Your task to perform on an android device: Search for the best rated tool bag on Lowe's. Image 0: 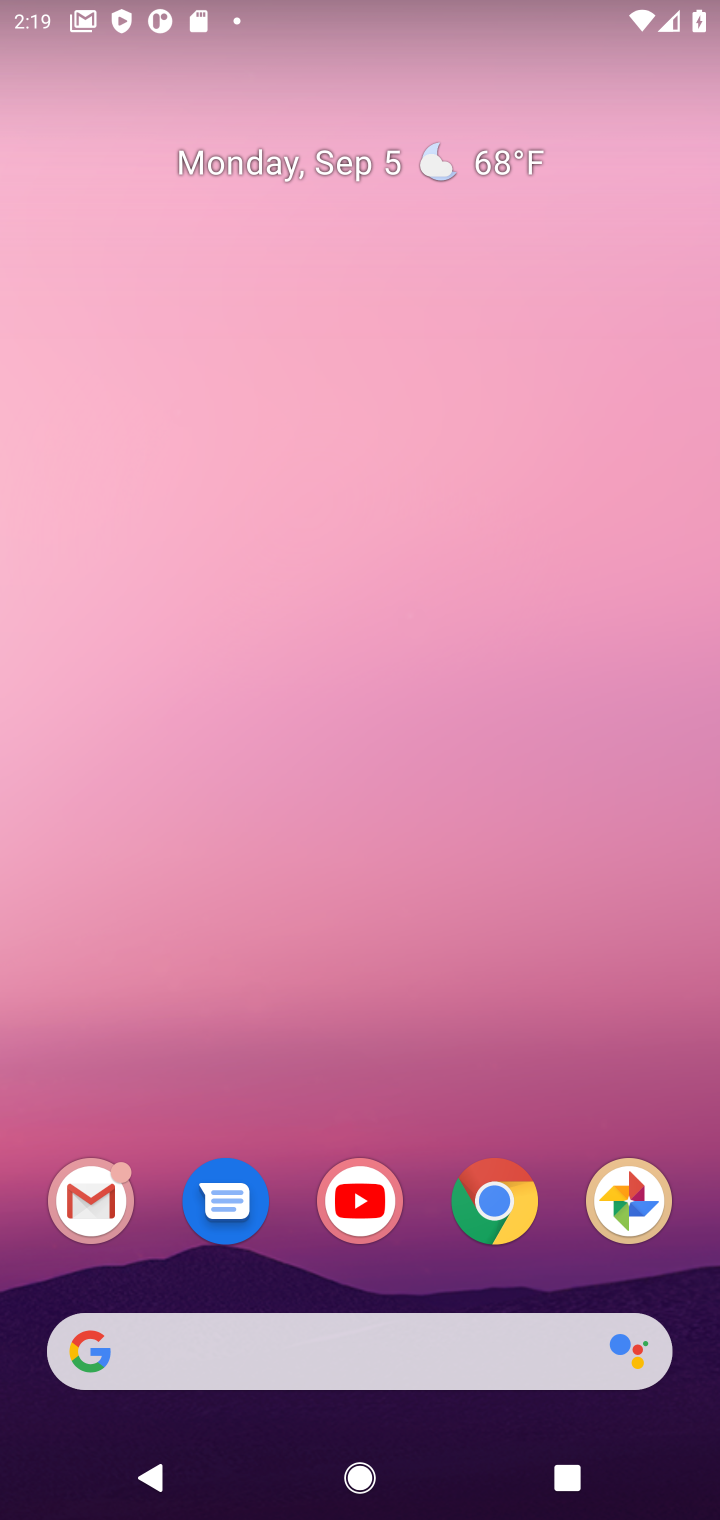
Step 0: click (511, 1211)
Your task to perform on an android device: Search for the best rated tool bag on Lowe's. Image 1: 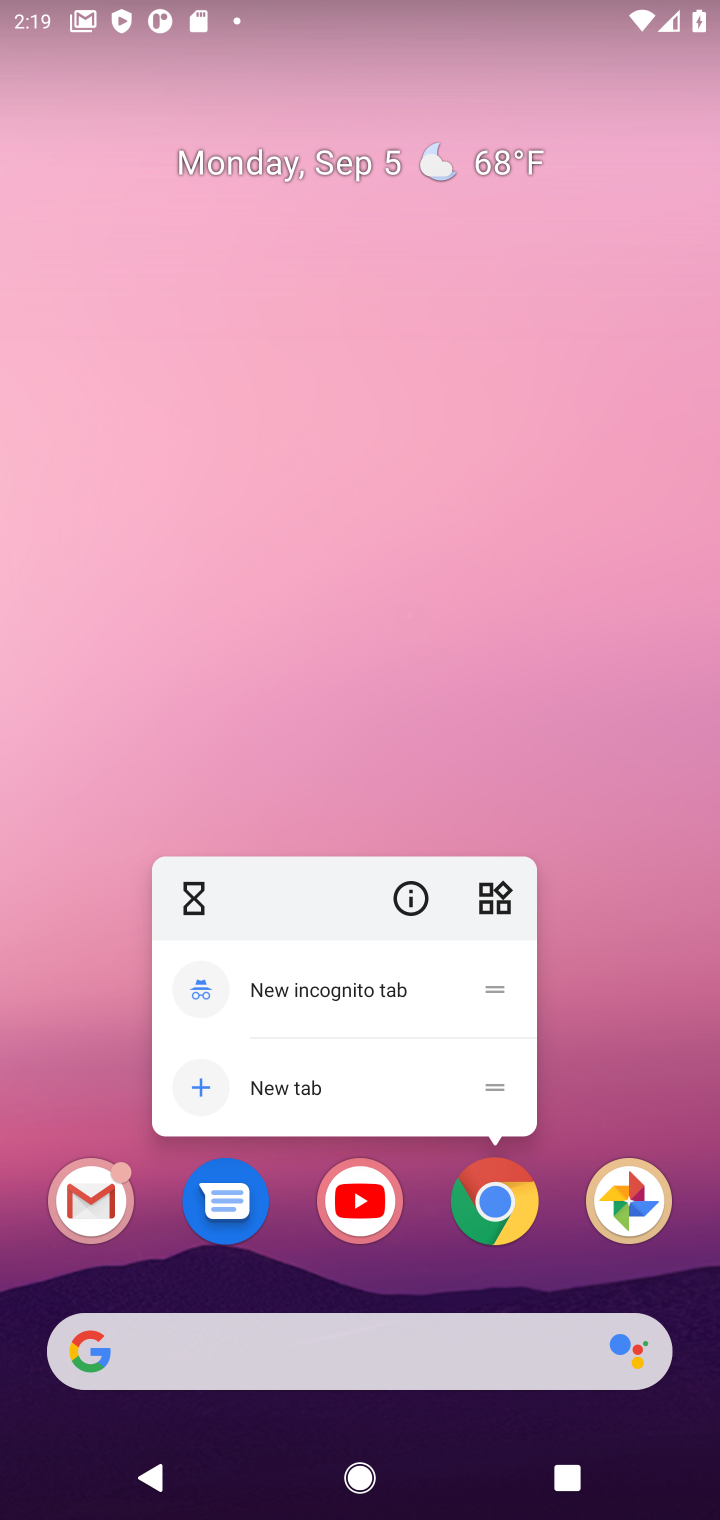
Step 1: click (511, 1214)
Your task to perform on an android device: Search for the best rated tool bag on Lowe's. Image 2: 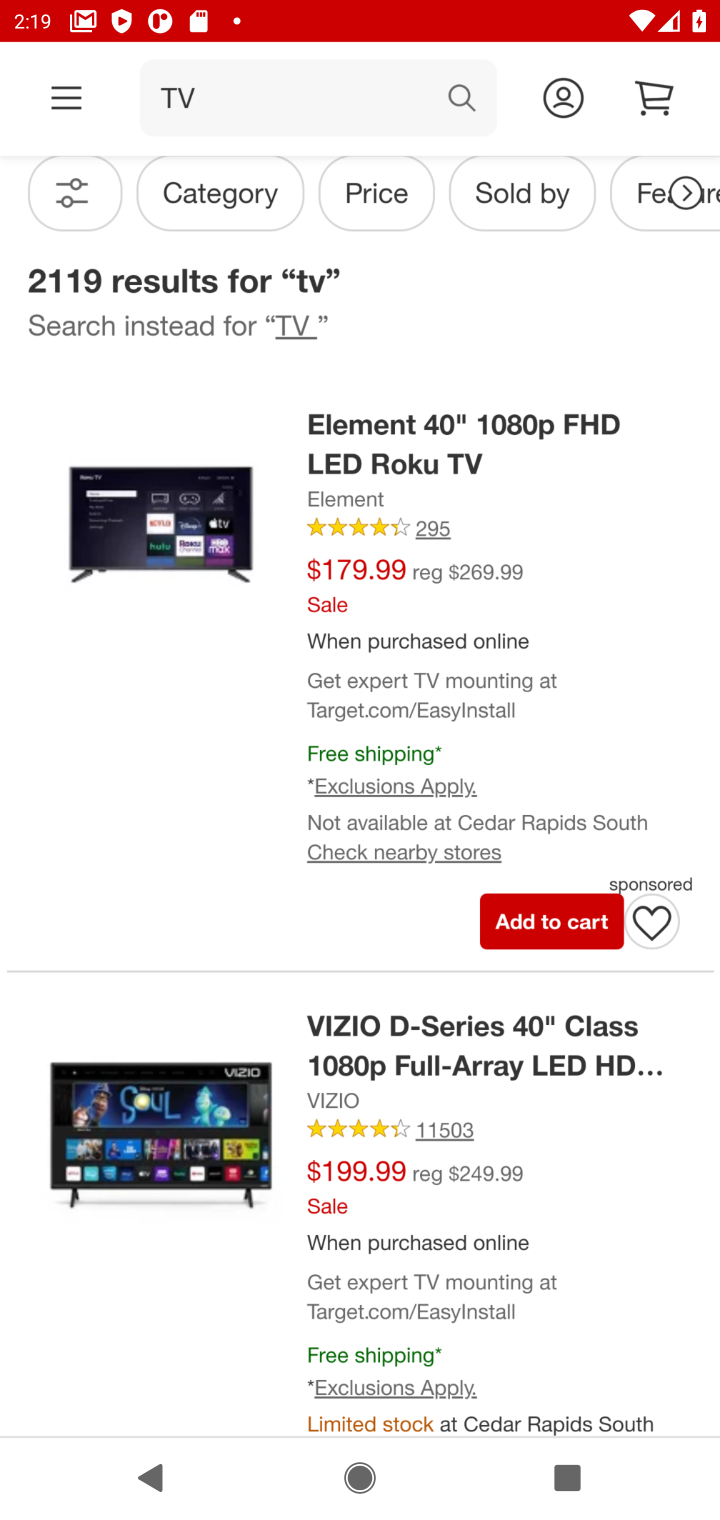
Step 2: click (511, 1214)
Your task to perform on an android device: Search for the best rated tool bag on Lowe's. Image 3: 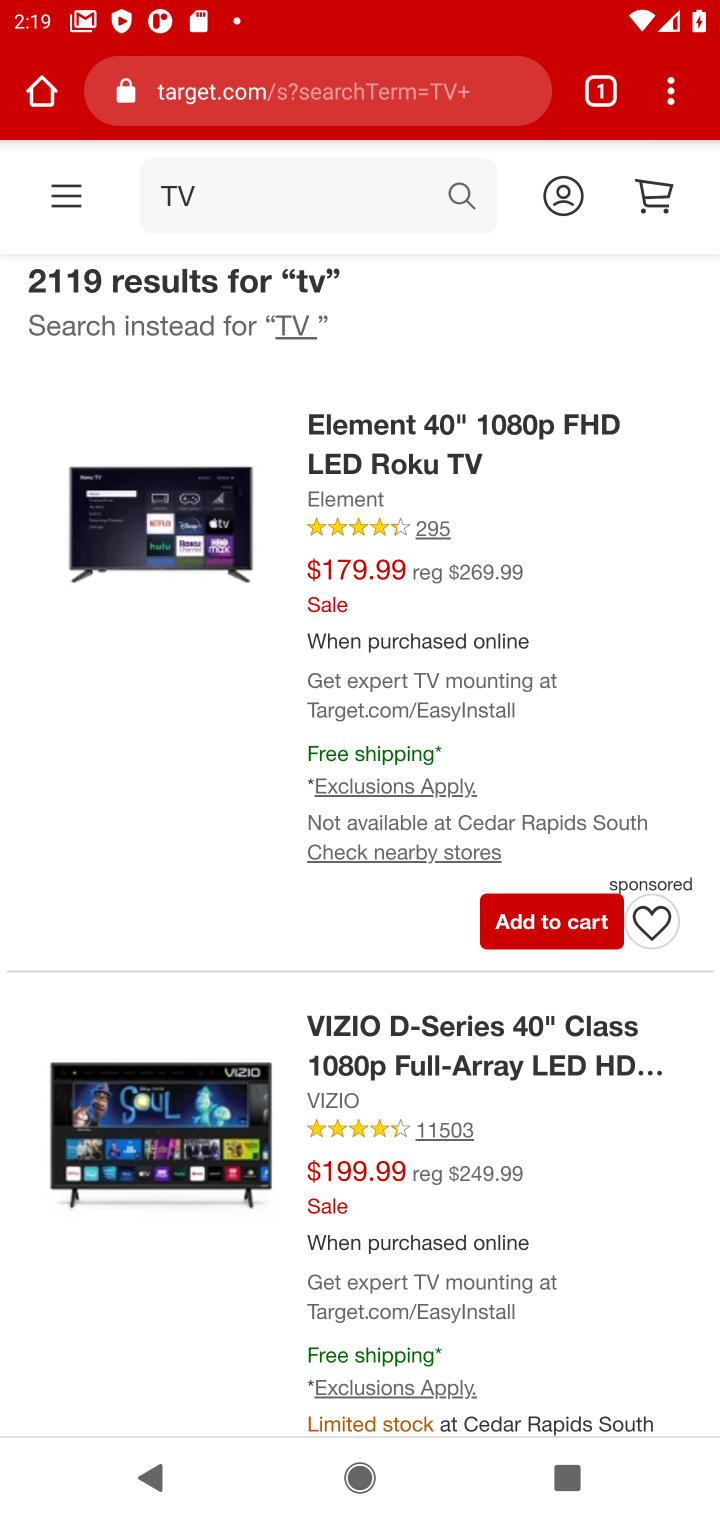
Step 3: click (450, 86)
Your task to perform on an android device: Search for the best rated tool bag on Lowe's. Image 4: 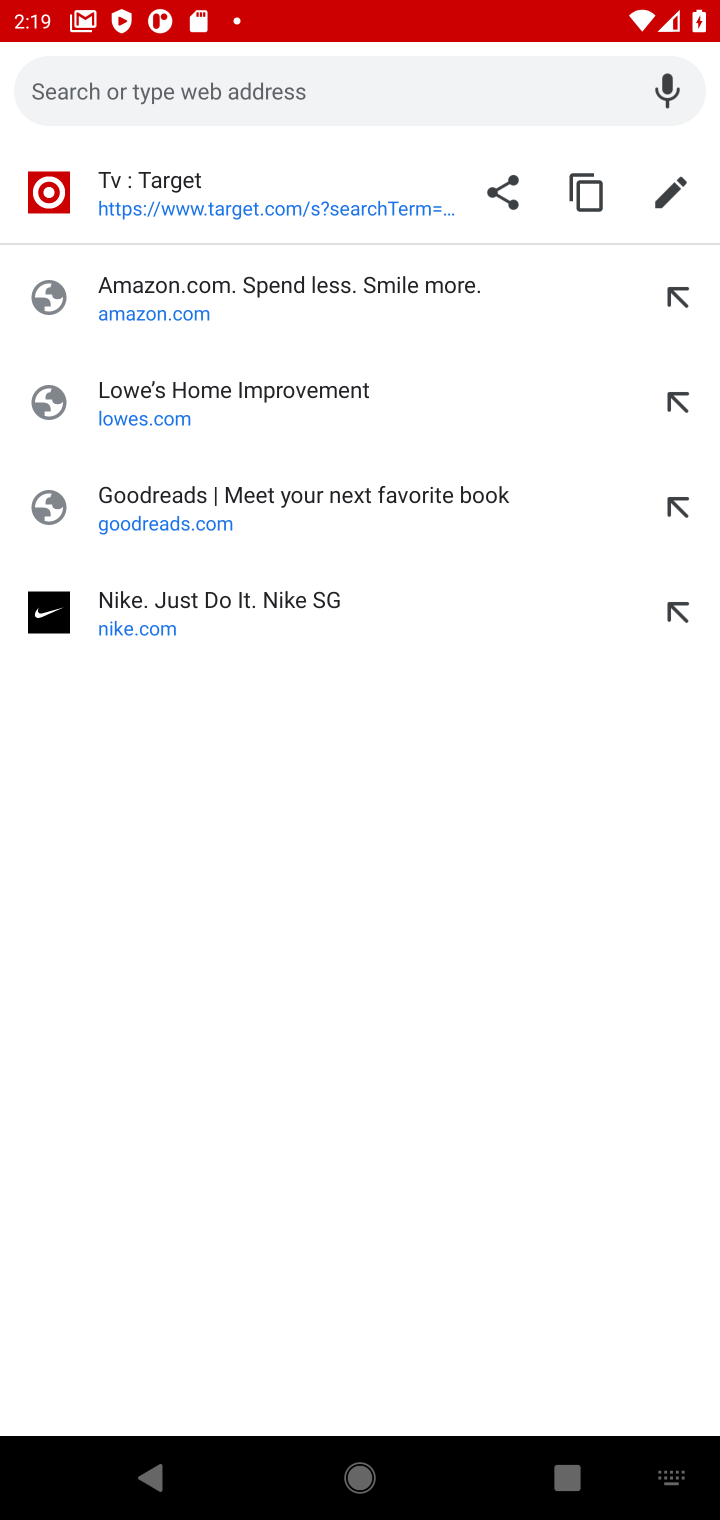
Step 4: type " Lowe's"
Your task to perform on an android device: Search for the best rated tool bag on Lowe's. Image 5: 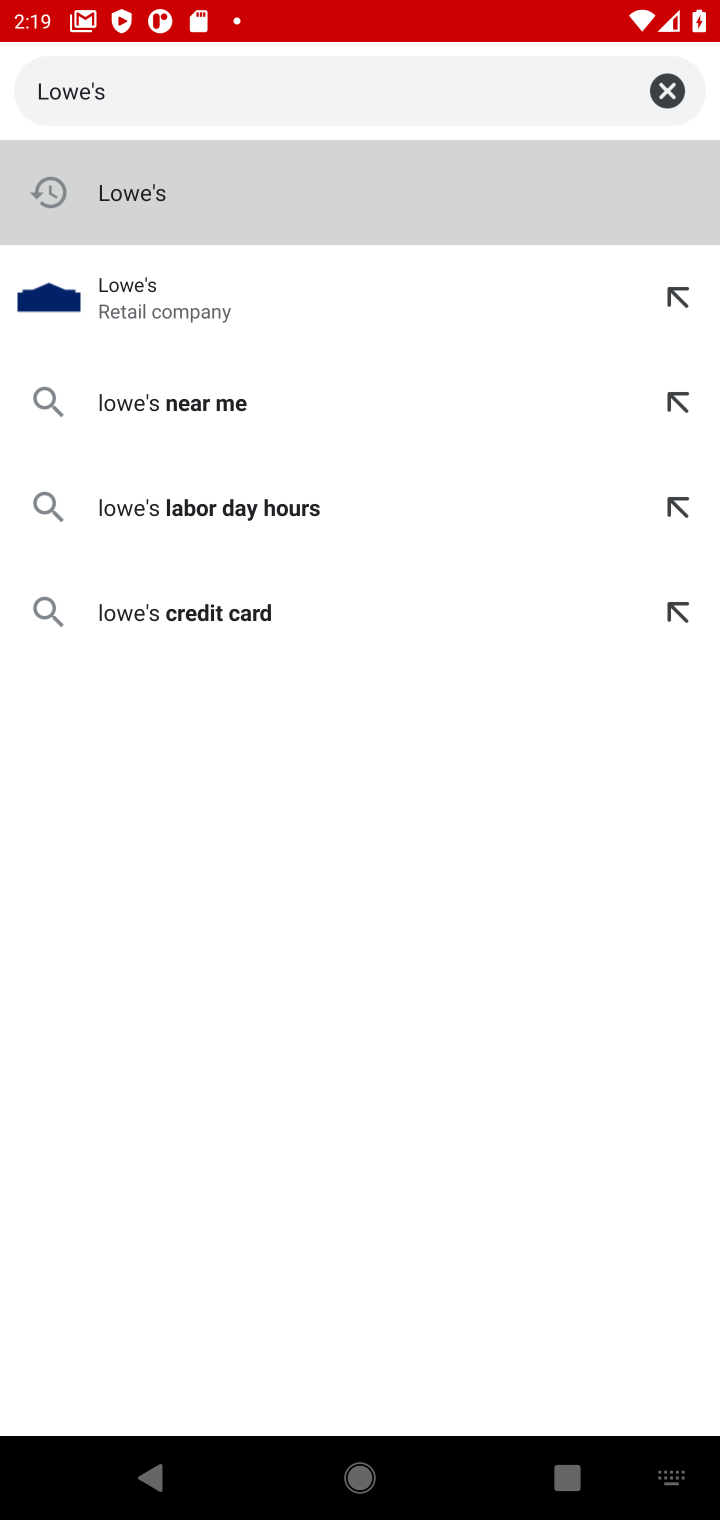
Step 5: press enter
Your task to perform on an android device: Search for the best rated tool bag on Lowe's. Image 6: 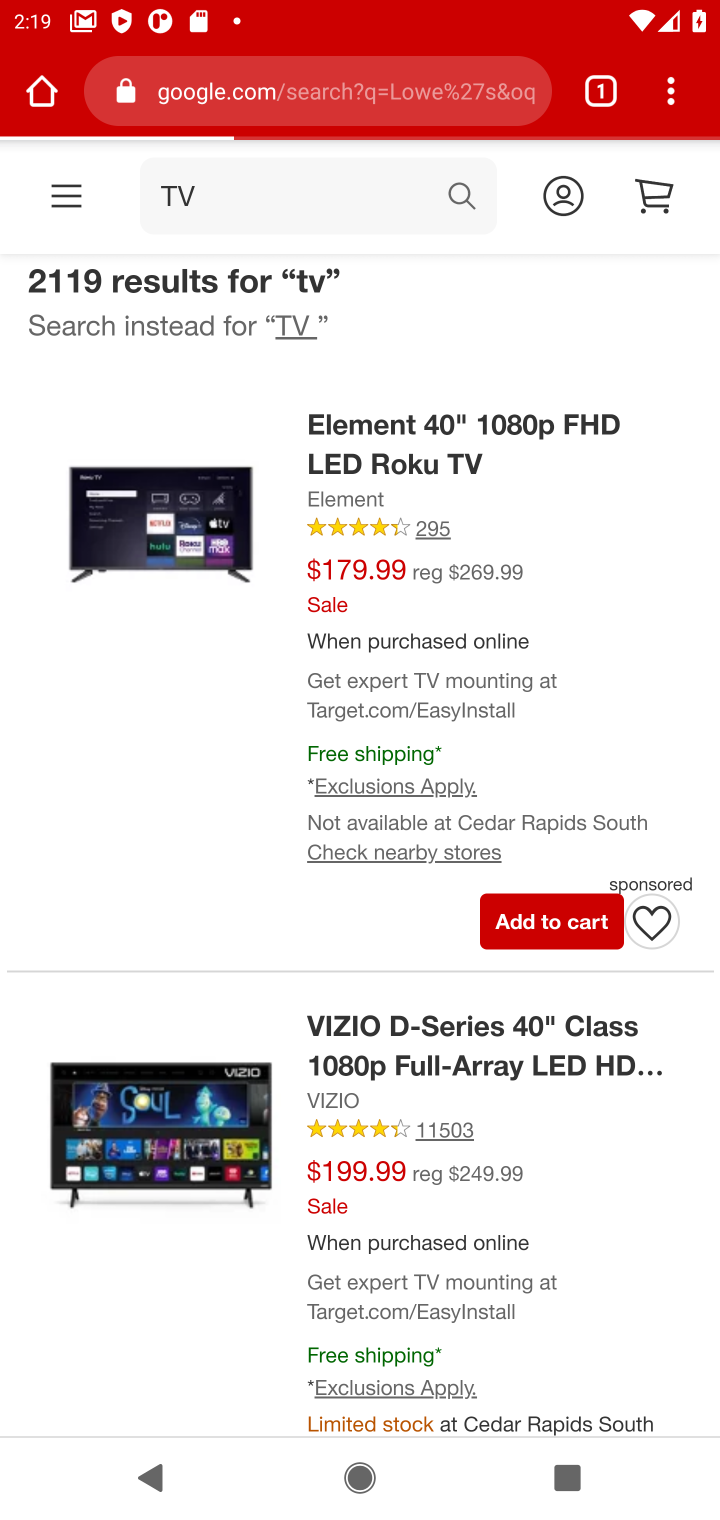
Step 6: click (369, 202)
Your task to perform on an android device: Search for the best rated tool bag on Lowe's. Image 7: 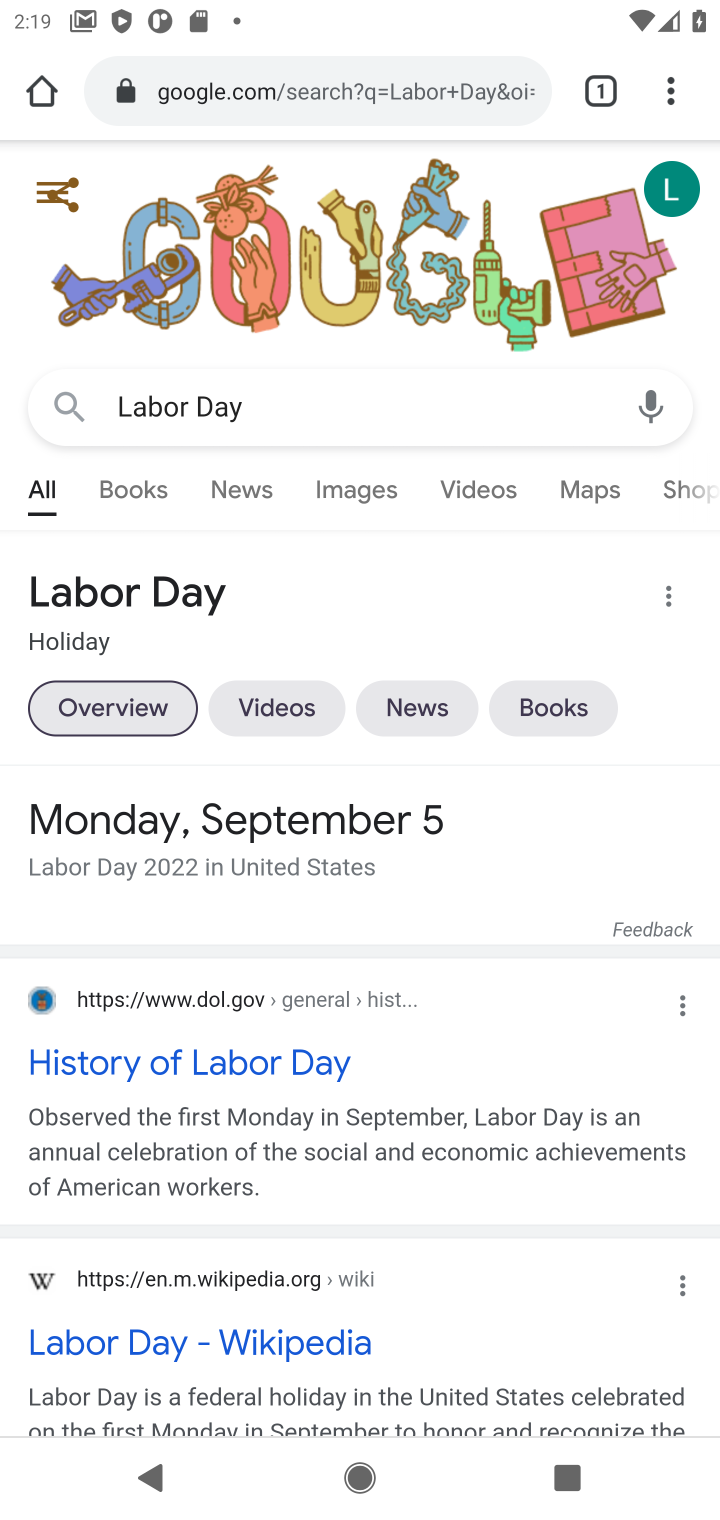
Step 7: press back button
Your task to perform on an android device: Search for the best rated tool bag on Lowe's. Image 8: 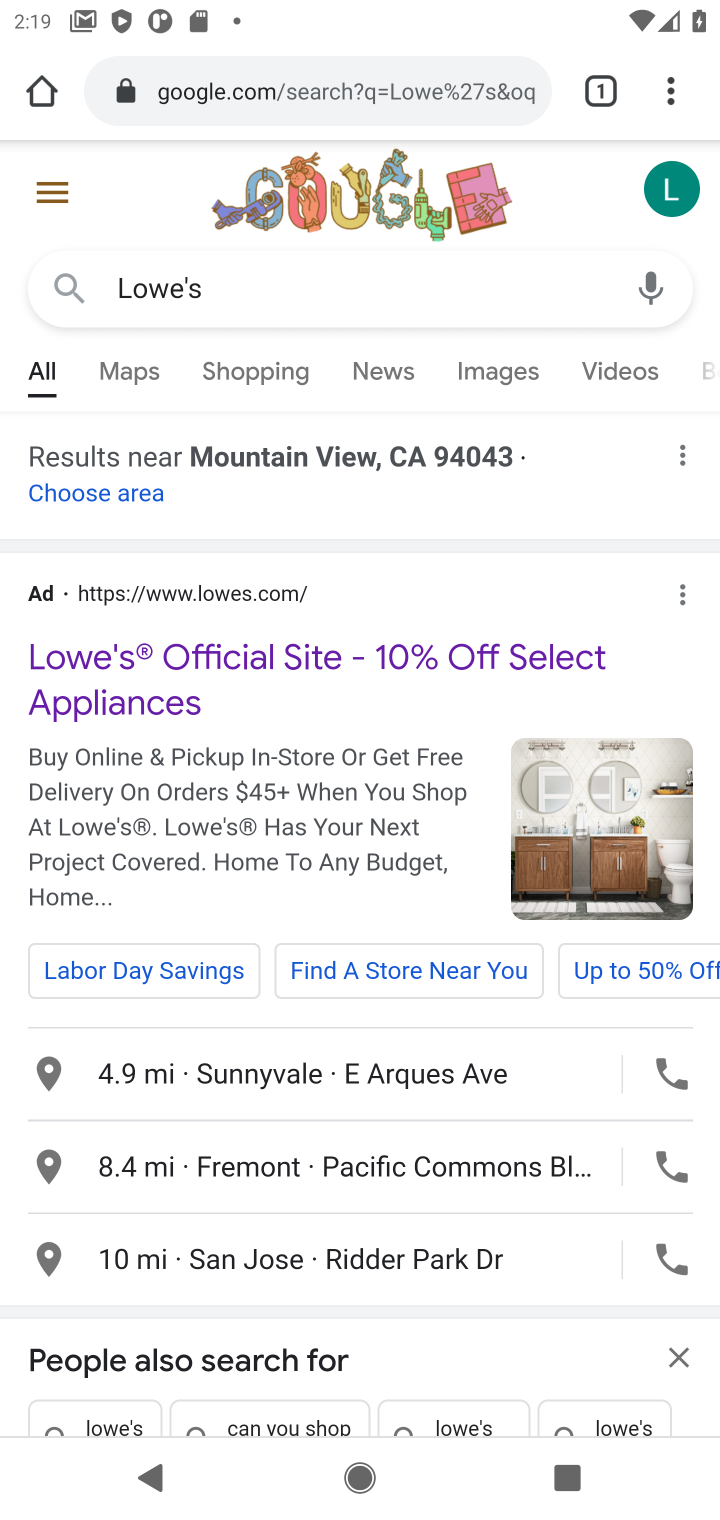
Step 8: click (199, 656)
Your task to perform on an android device: Search for the best rated tool bag on Lowe's. Image 9: 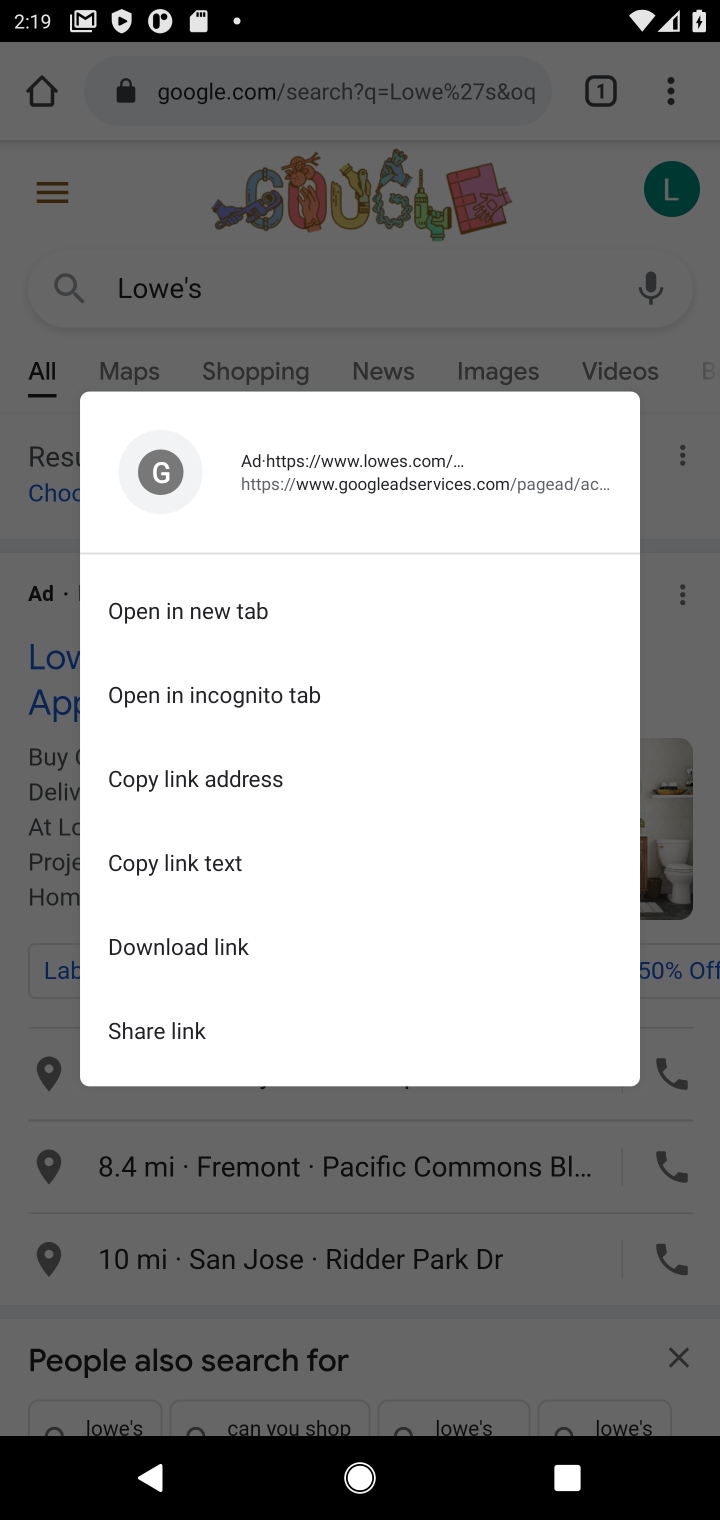
Step 9: click (555, 1260)
Your task to perform on an android device: Search for the best rated tool bag on Lowe's. Image 10: 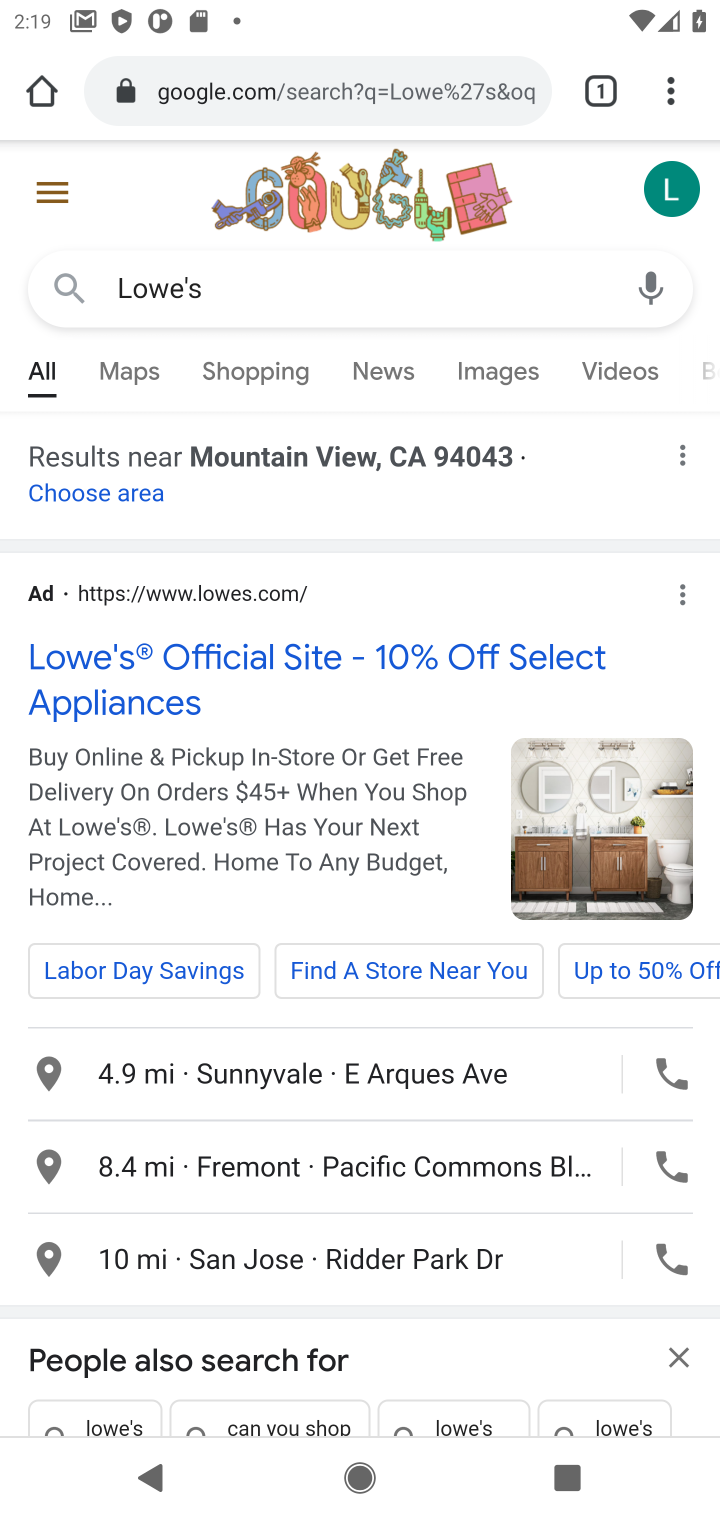
Step 10: click (91, 663)
Your task to perform on an android device: Search for the best rated tool bag on Lowe's. Image 11: 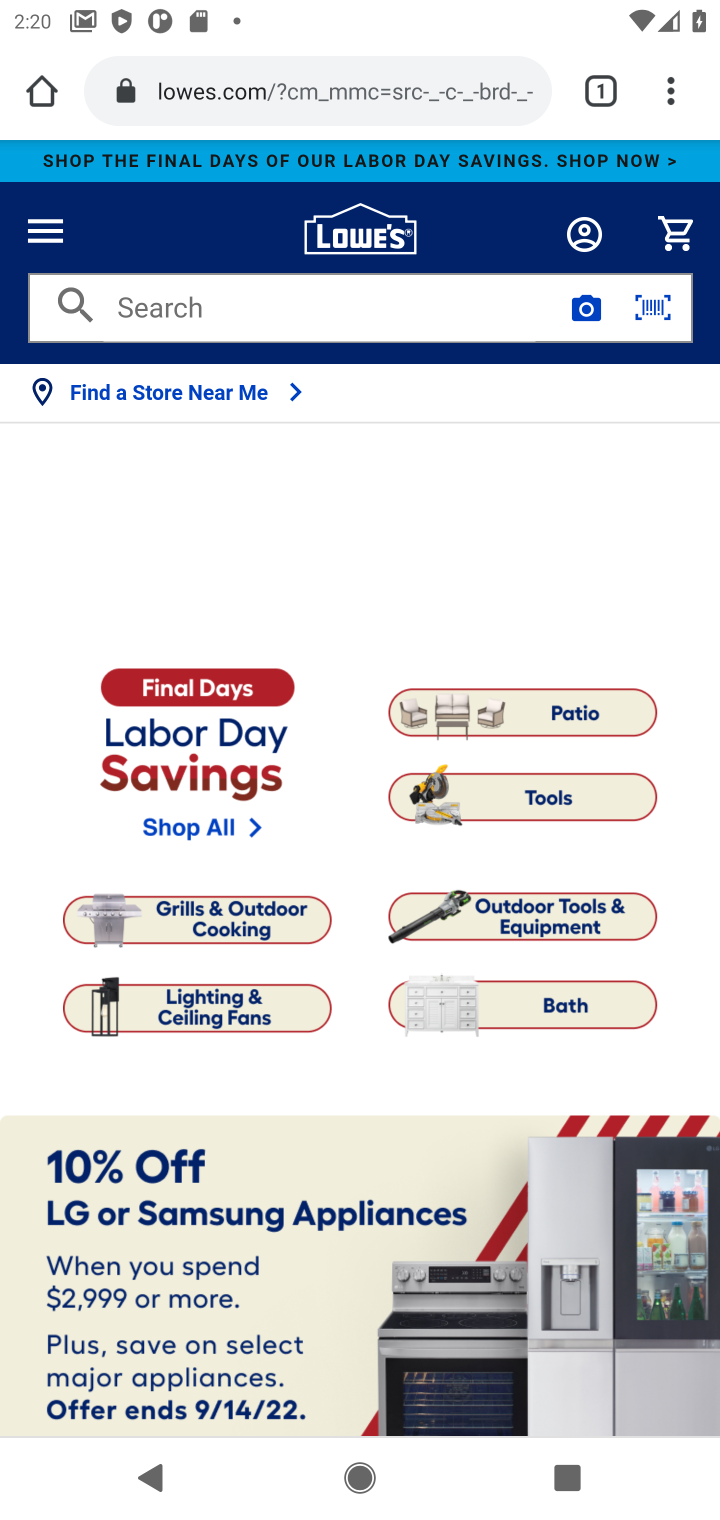
Step 11: click (338, 304)
Your task to perform on an android device: Search for the best rated tool bag on Lowe's. Image 12: 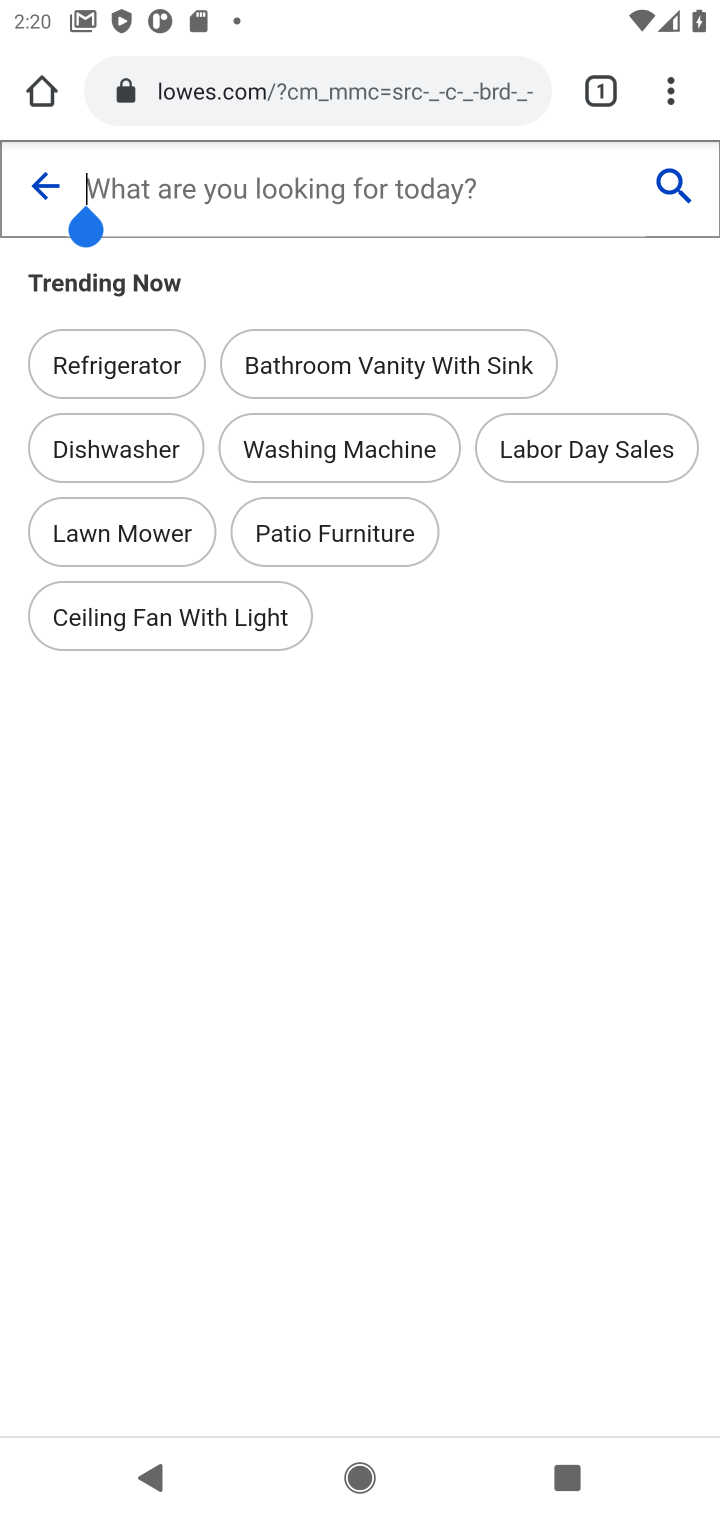
Step 12: press enter
Your task to perform on an android device: Search for the best rated tool bag on Lowe's. Image 13: 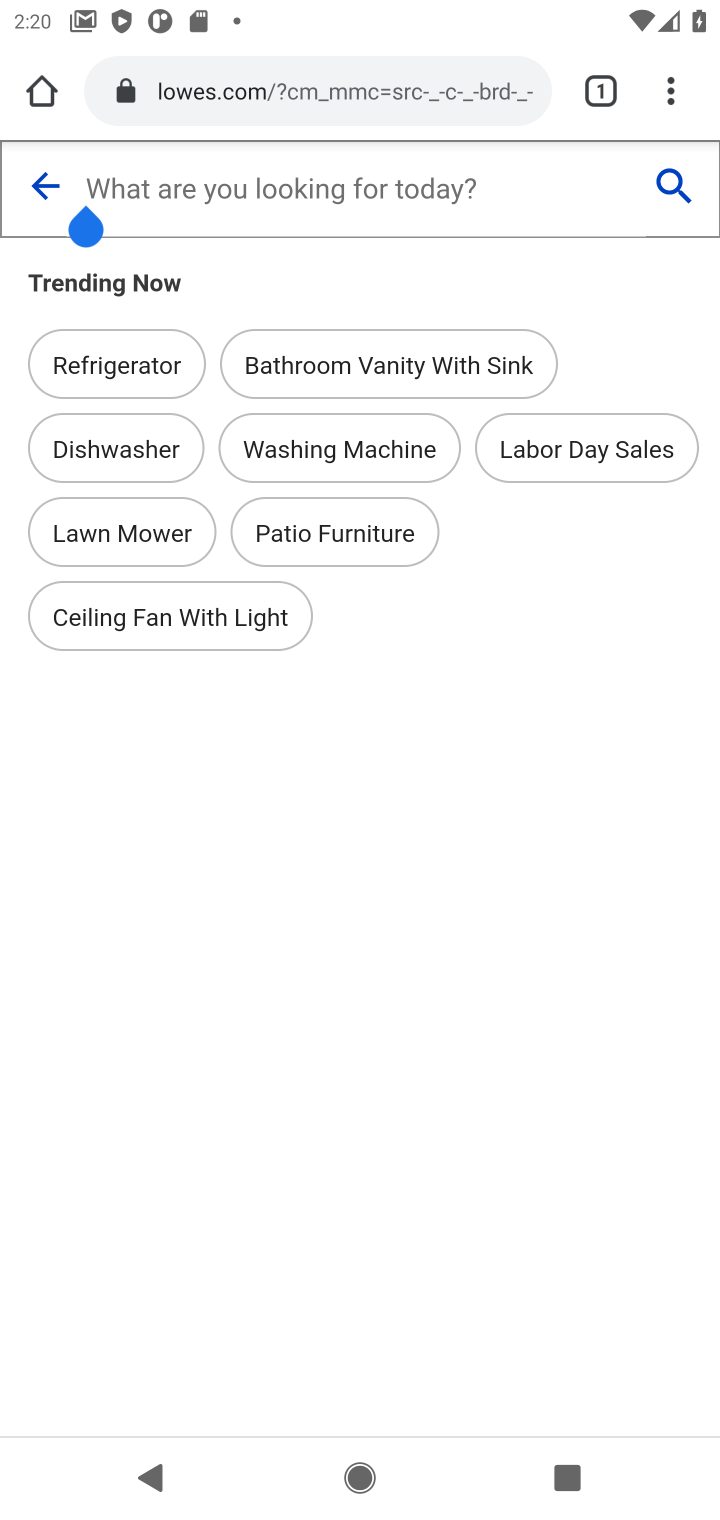
Step 13: type "tool bag"
Your task to perform on an android device: Search for the best rated tool bag on Lowe's. Image 14: 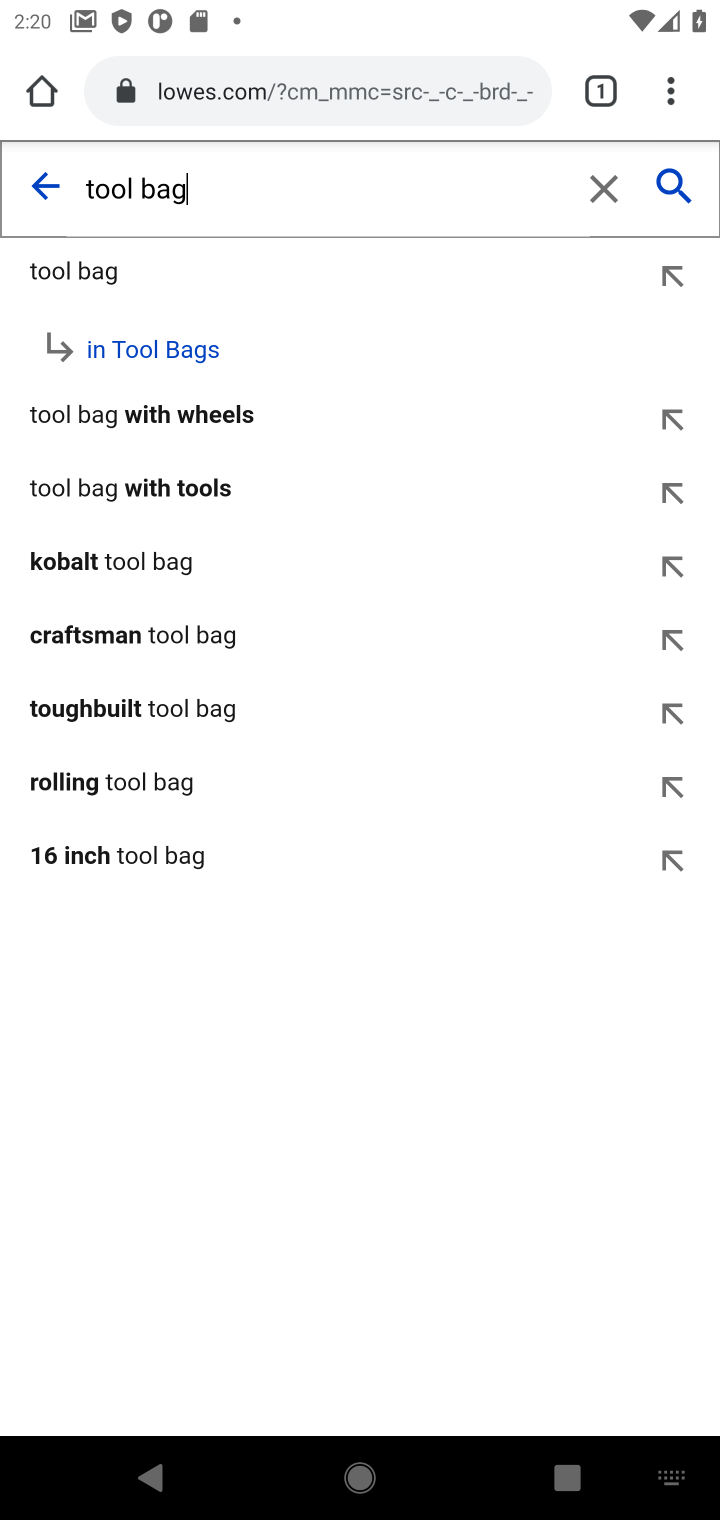
Step 14: click (101, 281)
Your task to perform on an android device: Search for the best rated tool bag on Lowe's. Image 15: 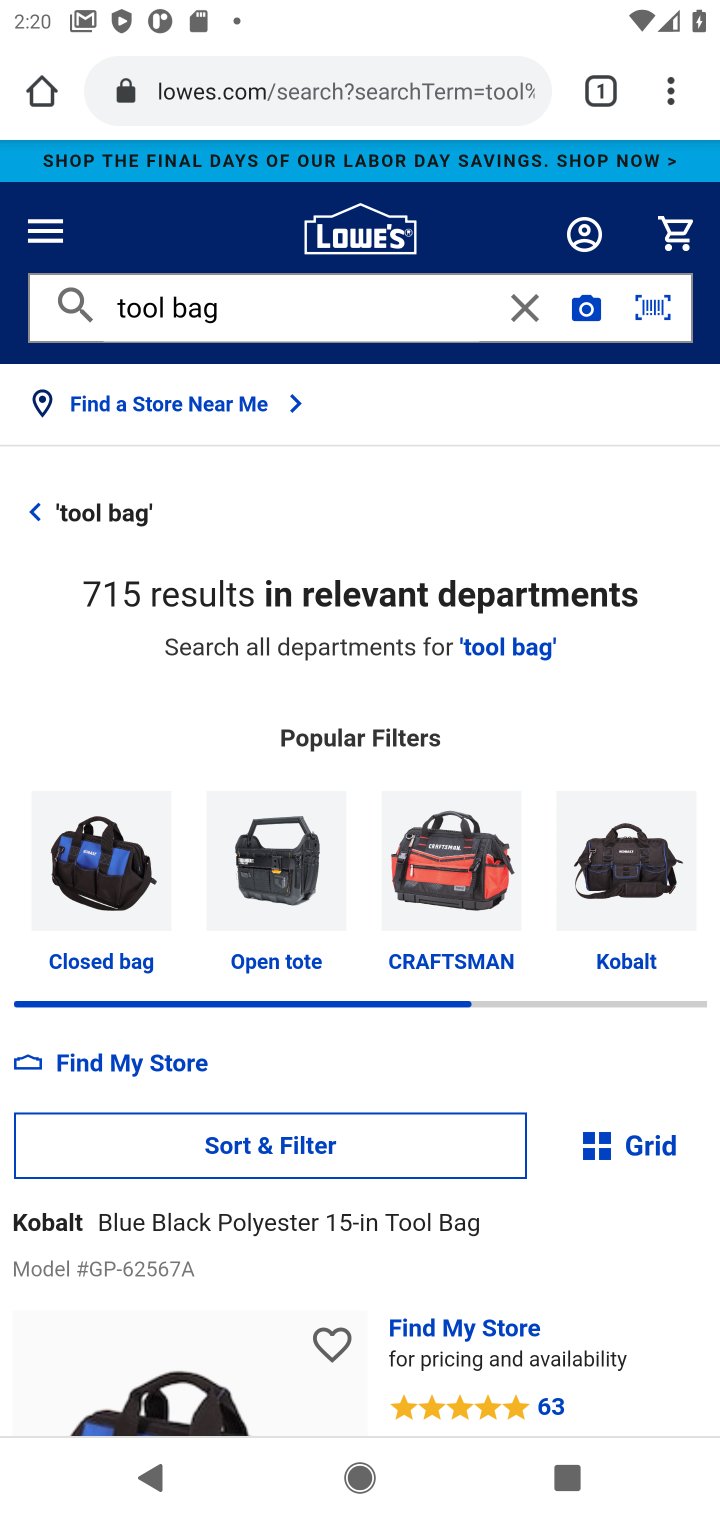
Step 15: task complete